Your task to perform on an android device: turn on the 12-hour format for clock Image 0: 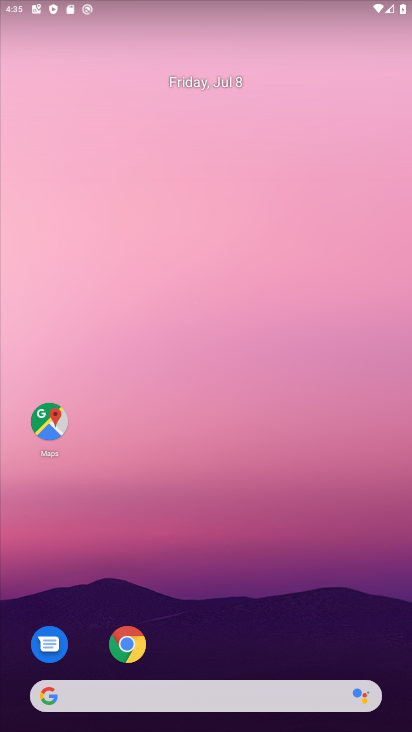
Step 0: drag from (203, 637) to (264, 103)
Your task to perform on an android device: turn on the 12-hour format for clock Image 1: 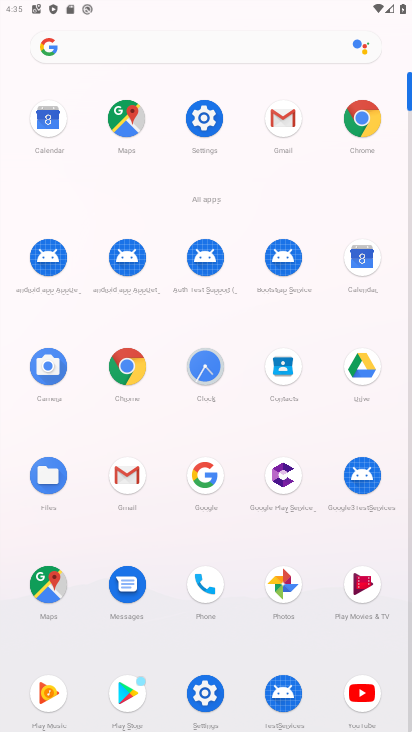
Step 1: click (202, 360)
Your task to perform on an android device: turn on the 12-hour format for clock Image 2: 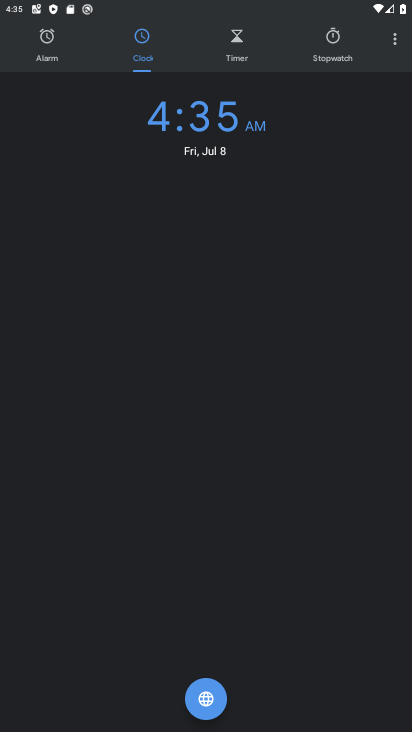
Step 2: click (396, 42)
Your task to perform on an android device: turn on the 12-hour format for clock Image 3: 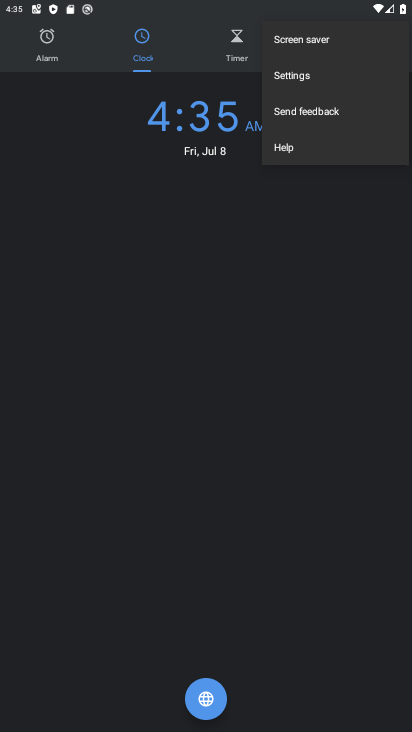
Step 3: click (320, 76)
Your task to perform on an android device: turn on the 12-hour format for clock Image 4: 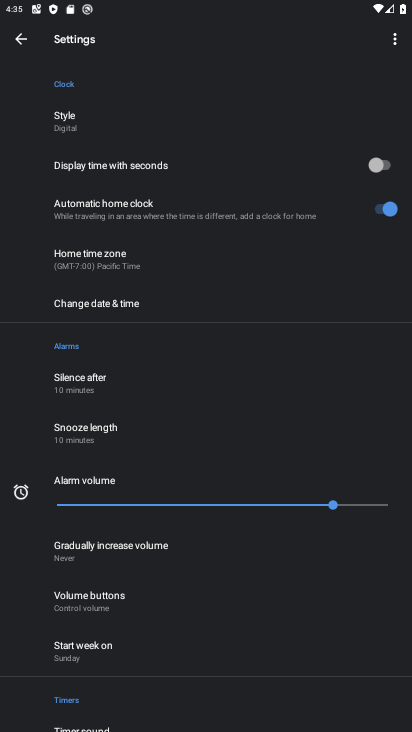
Step 4: click (149, 303)
Your task to perform on an android device: turn on the 12-hour format for clock Image 5: 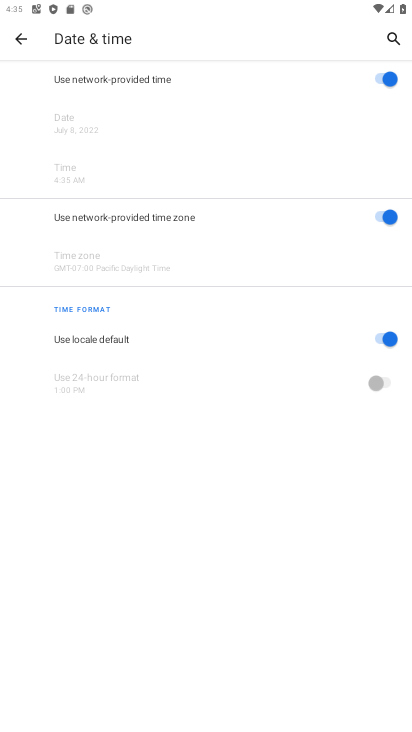
Step 5: click (379, 335)
Your task to perform on an android device: turn on the 12-hour format for clock Image 6: 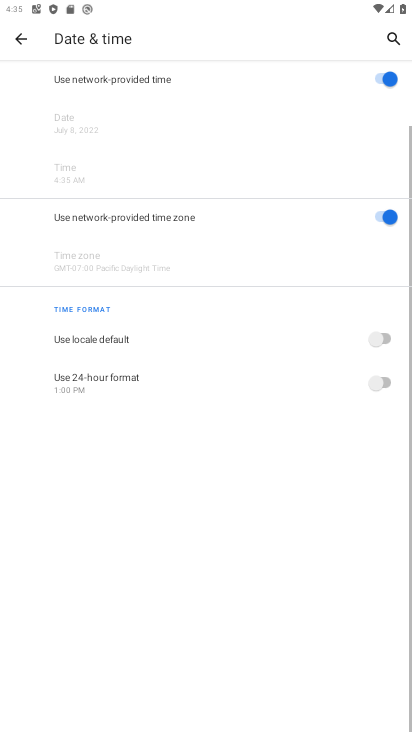
Step 6: click (381, 334)
Your task to perform on an android device: turn on the 12-hour format for clock Image 7: 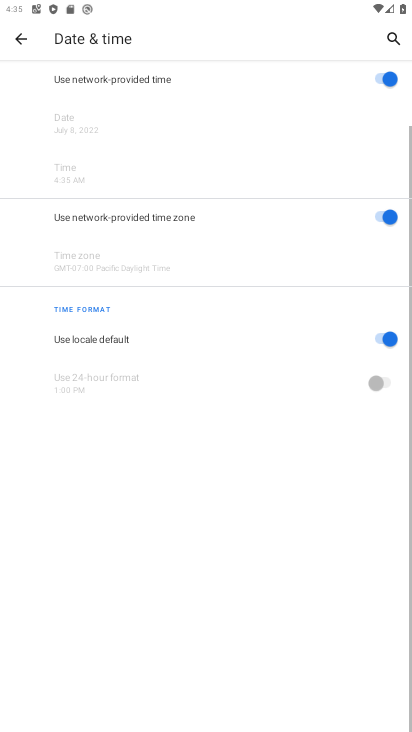
Step 7: task complete